Your task to perform on an android device: Toggle the flashlight Image 0: 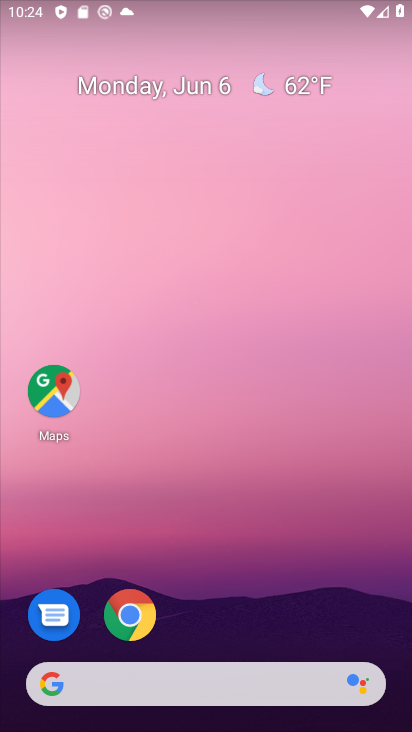
Step 0: drag from (160, 12) to (217, 375)
Your task to perform on an android device: Toggle the flashlight Image 1: 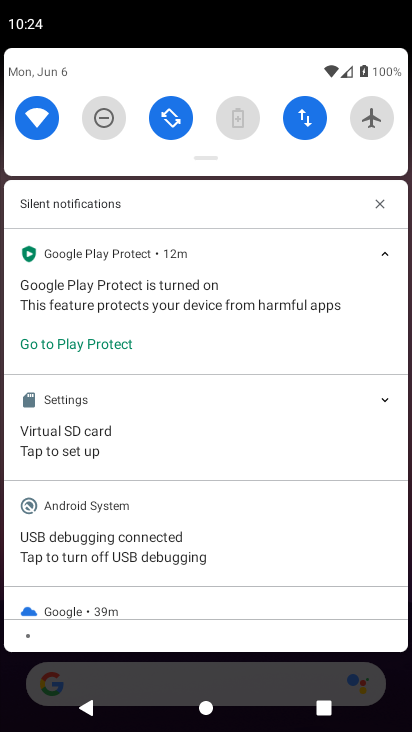
Step 1: task complete